Your task to perform on an android device: turn off data saver in the chrome app Image 0: 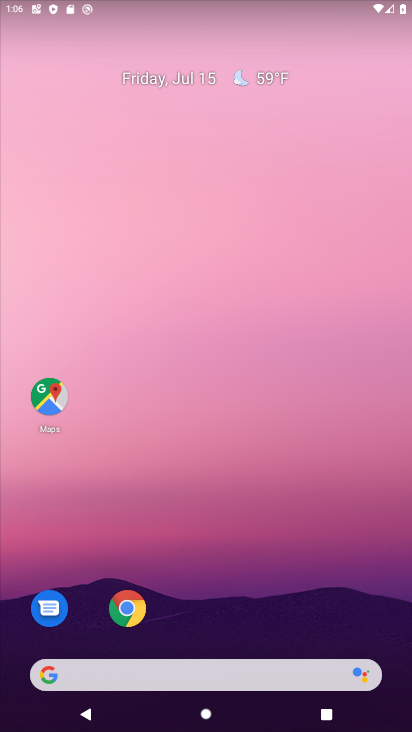
Step 0: drag from (222, 439) to (222, 373)
Your task to perform on an android device: turn off data saver in the chrome app Image 1: 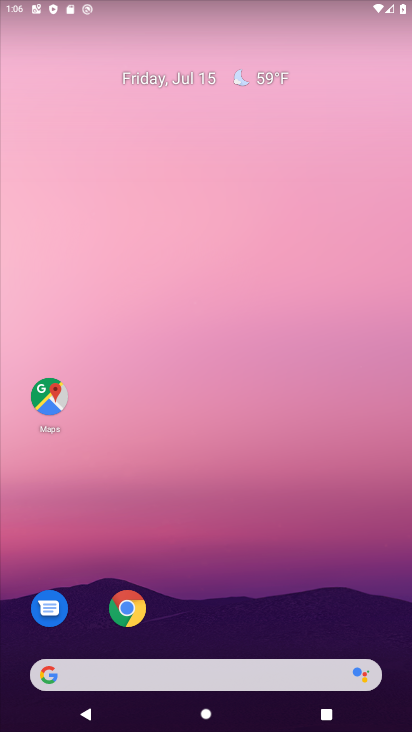
Step 1: drag from (202, 688) to (201, 305)
Your task to perform on an android device: turn off data saver in the chrome app Image 2: 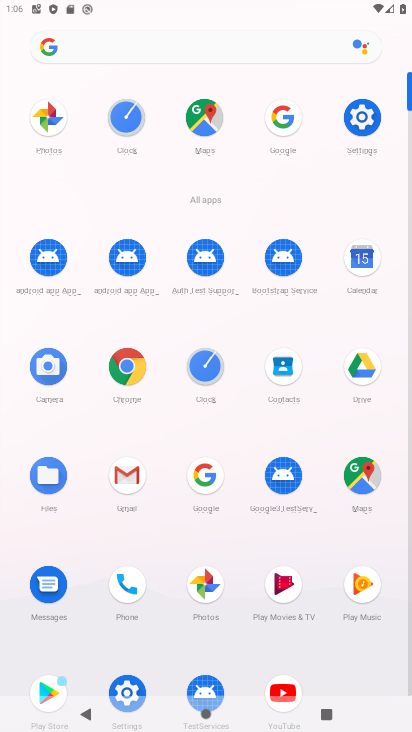
Step 2: click (121, 360)
Your task to perform on an android device: turn off data saver in the chrome app Image 3: 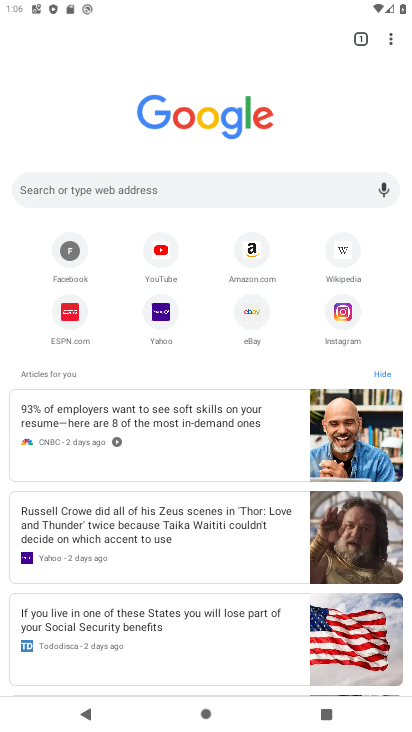
Step 3: click (391, 38)
Your task to perform on an android device: turn off data saver in the chrome app Image 4: 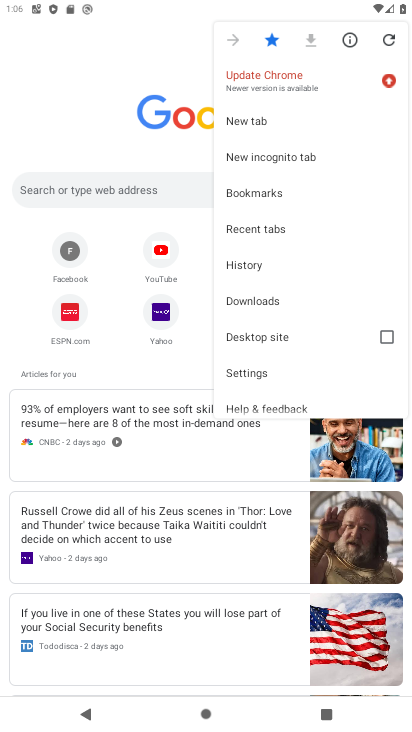
Step 4: click (243, 375)
Your task to perform on an android device: turn off data saver in the chrome app Image 5: 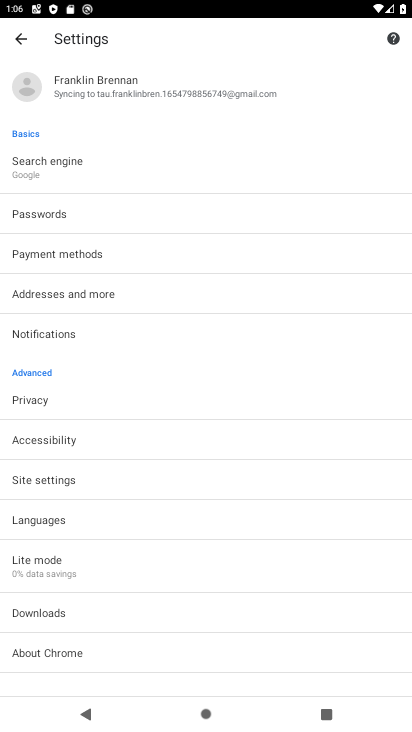
Step 5: click (36, 558)
Your task to perform on an android device: turn off data saver in the chrome app Image 6: 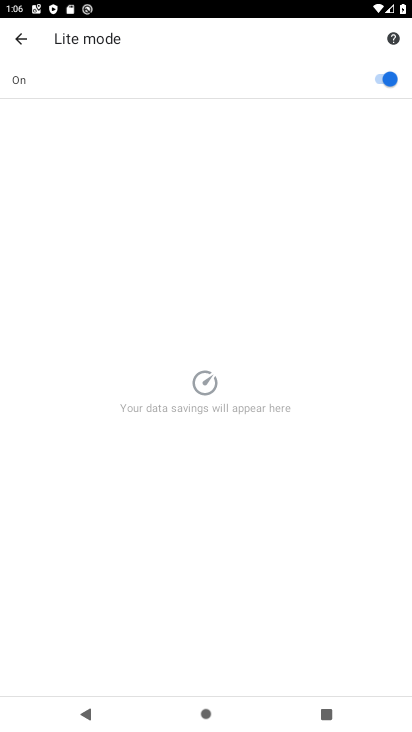
Step 6: click (389, 73)
Your task to perform on an android device: turn off data saver in the chrome app Image 7: 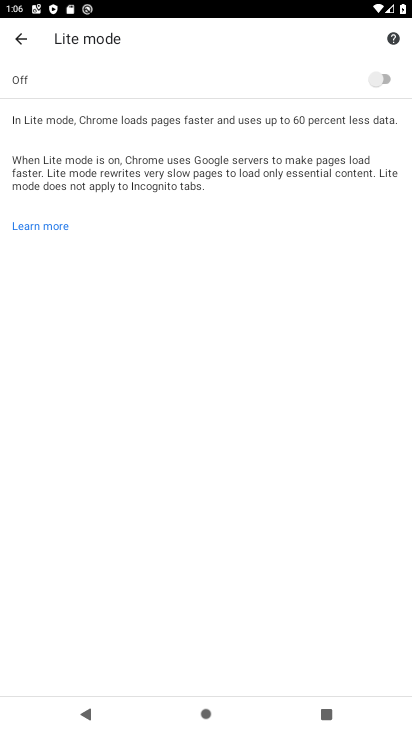
Step 7: task complete